Your task to perform on an android device: turn on data saver in the chrome app Image 0: 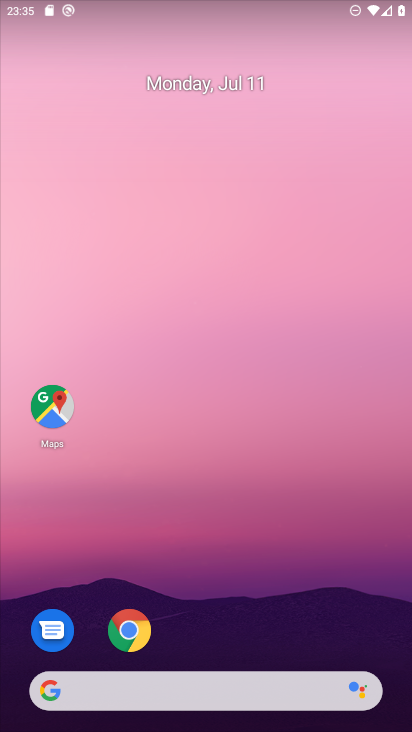
Step 0: drag from (218, 639) to (219, 184)
Your task to perform on an android device: turn on data saver in the chrome app Image 1: 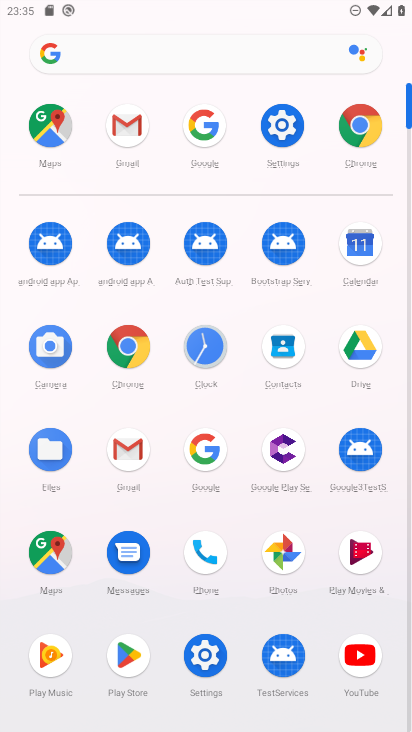
Step 1: click (362, 124)
Your task to perform on an android device: turn on data saver in the chrome app Image 2: 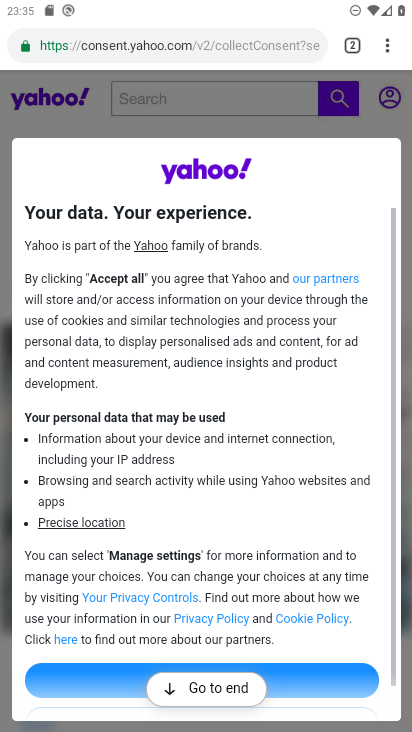
Step 2: click (382, 41)
Your task to perform on an android device: turn on data saver in the chrome app Image 3: 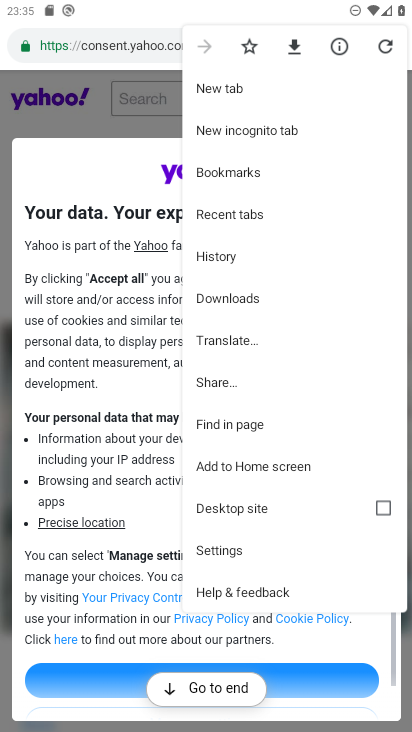
Step 3: click (241, 549)
Your task to perform on an android device: turn on data saver in the chrome app Image 4: 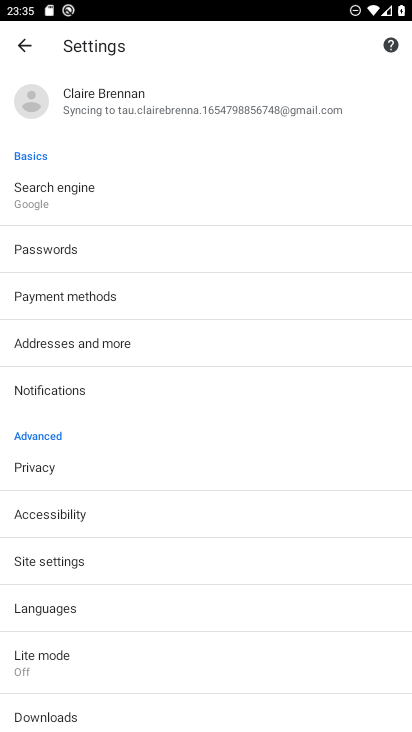
Step 4: click (52, 656)
Your task to perform on an android device: turn on data saver in the chrome app Image 5: 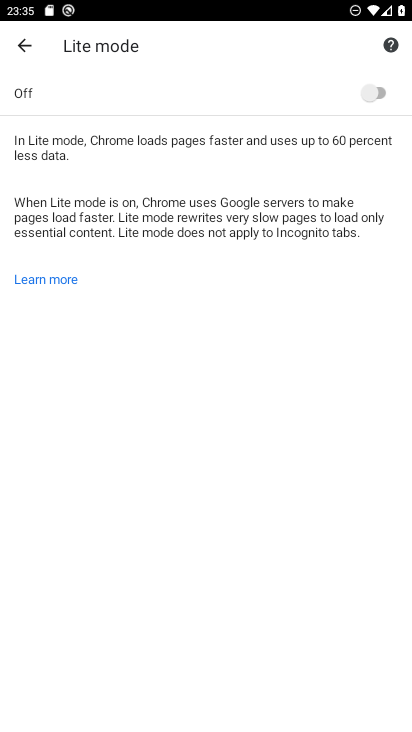
Step 5: click (378, 94)
Your task to perform on an android device: turn on data saver in the chrome app Image 6: 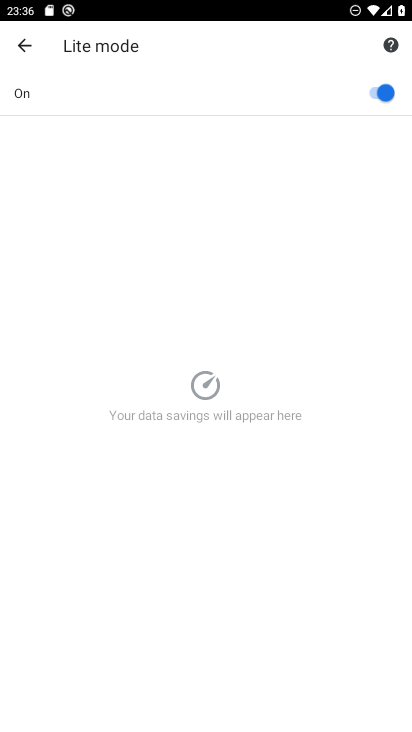
Step 6: task complete